Your task to perform on an android device: Search for pizza restaurants on Maps Image 0: 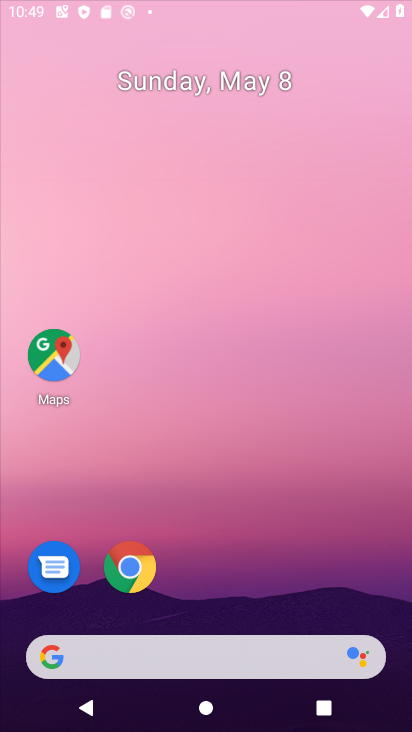
Step 0: click (263, 76)
Your task to perform on an android device: Search for pizza restaurants on Maps Image 1: 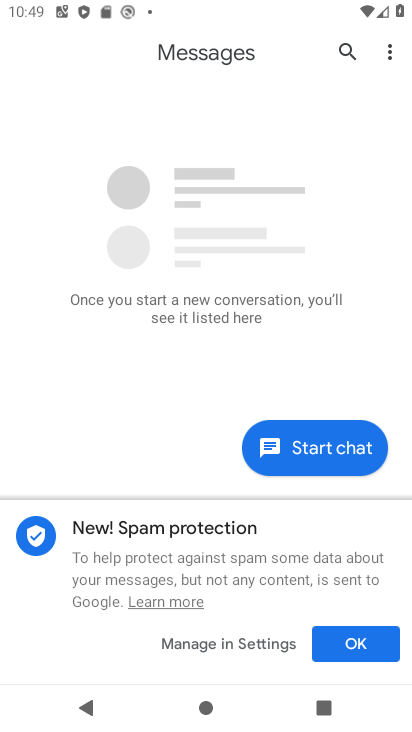
Step 1: press home button
Your task to perform on an android device: Search for pizza restaurants on Maps Image 2: 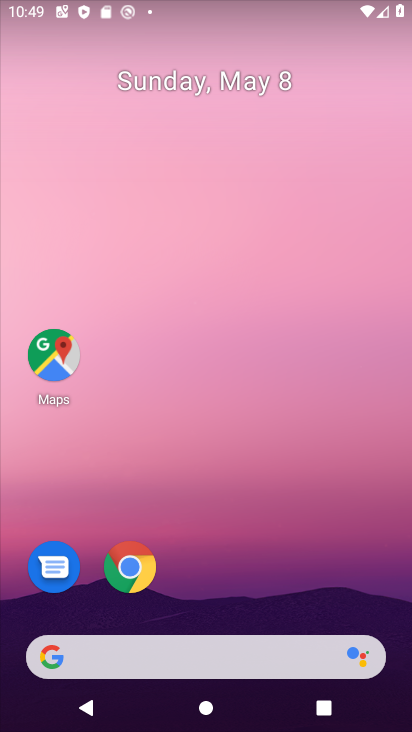
Step 2: click (53, 355)
Your task to perform on an android device: Search for pizza restaurants on Maps Image 3: 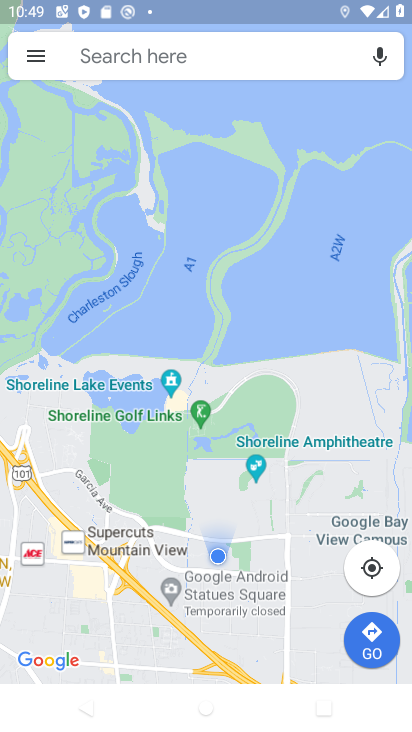
Step 3: click (117, 50)
Your task to perform on an android device: Search for pizza restaurants on Maps Image 4: 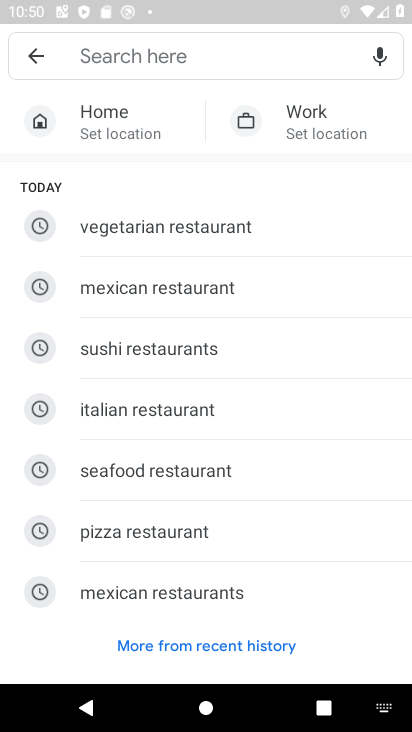
Step 4: click (124, 524)
Your task to perform on an android device: Search for pizza restaurants on Maps Image 5: 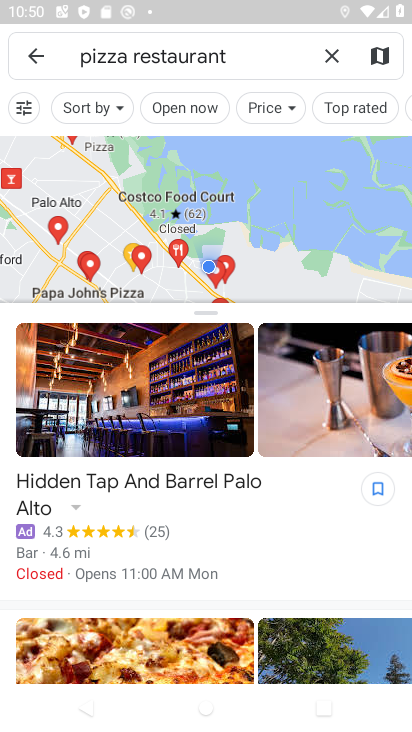
Step 5: task complete